Your task to perform on an android device: open app "Microsoft Outlook" (install if not already installed) Image 0: 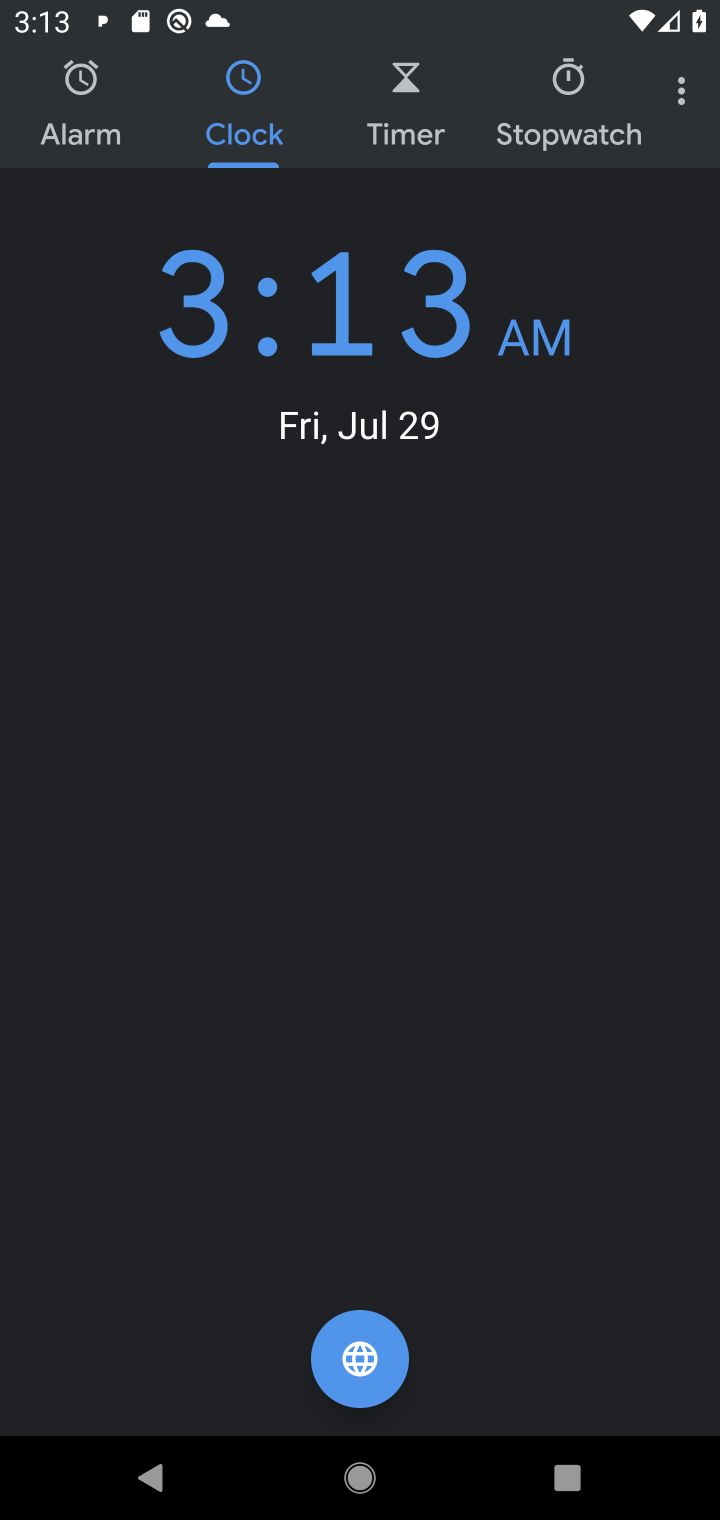
Step 0: press home button
Your task to perform on an android device: open app "Microsoft Outlook" (install if not already installed) Image 1: 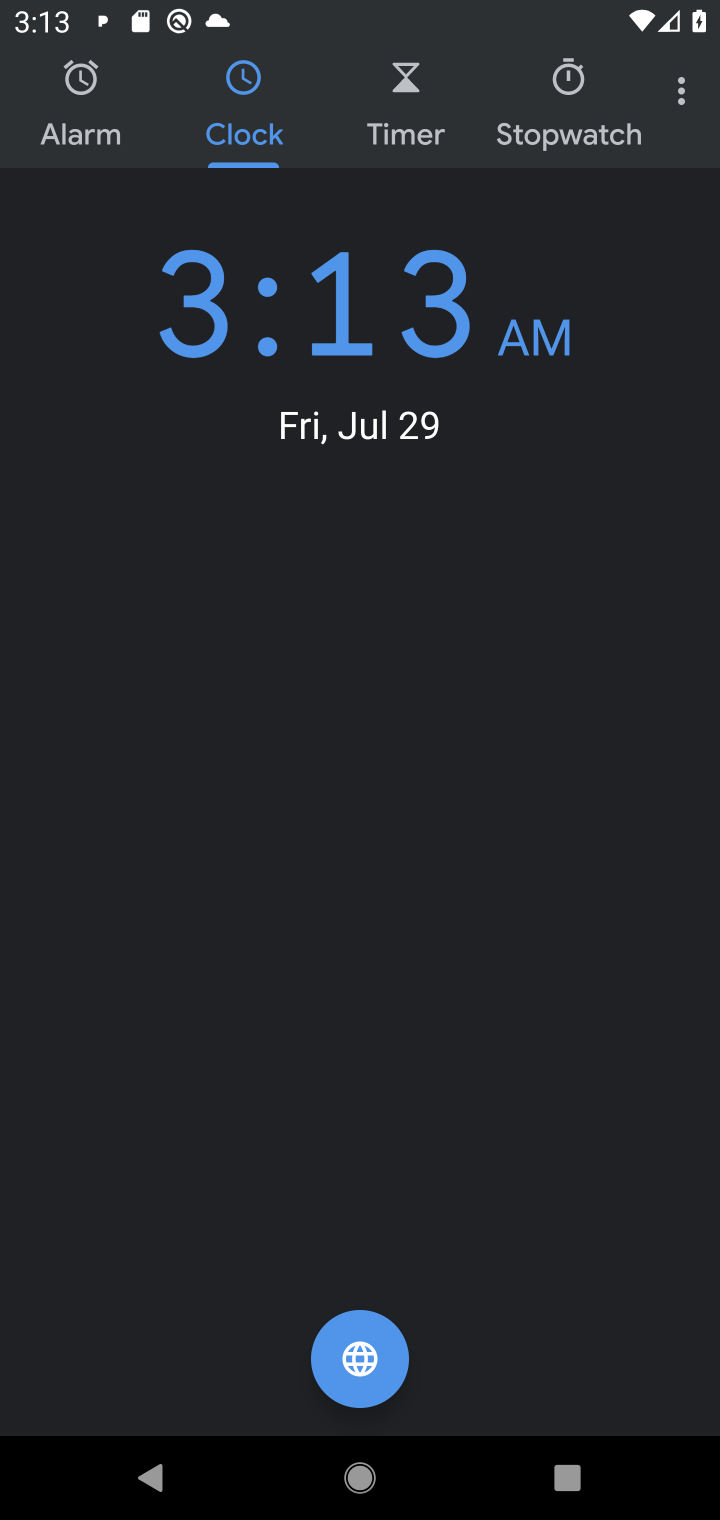
Step 1: press home button
Your task to perform on an android device: open app "Microsoft Outlook" (install if not already installed) Image 2: 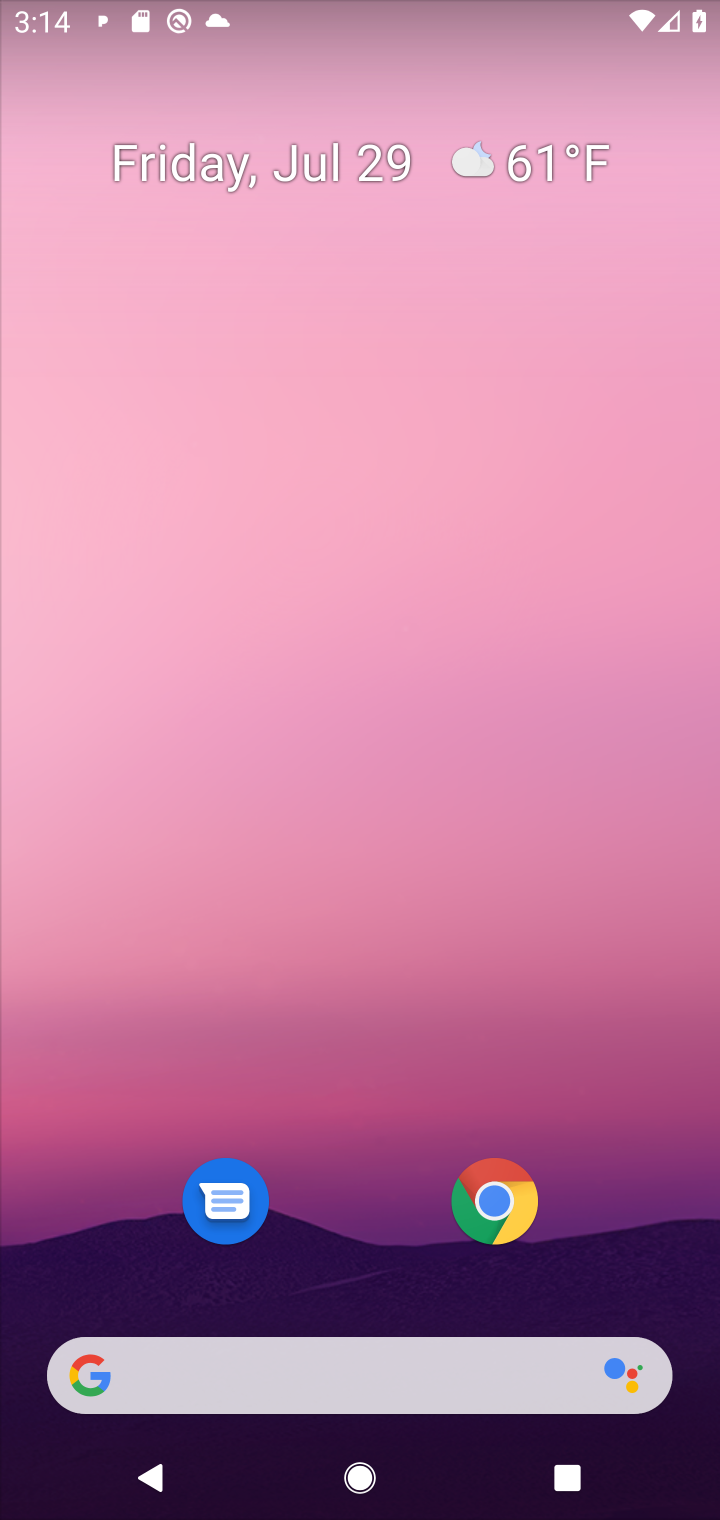
Step 2: drag from (599, 1132) to (597, 511)
Your task to perform on an android device: open app "Microsoft Outlook" (install if not already installed) Image 3: 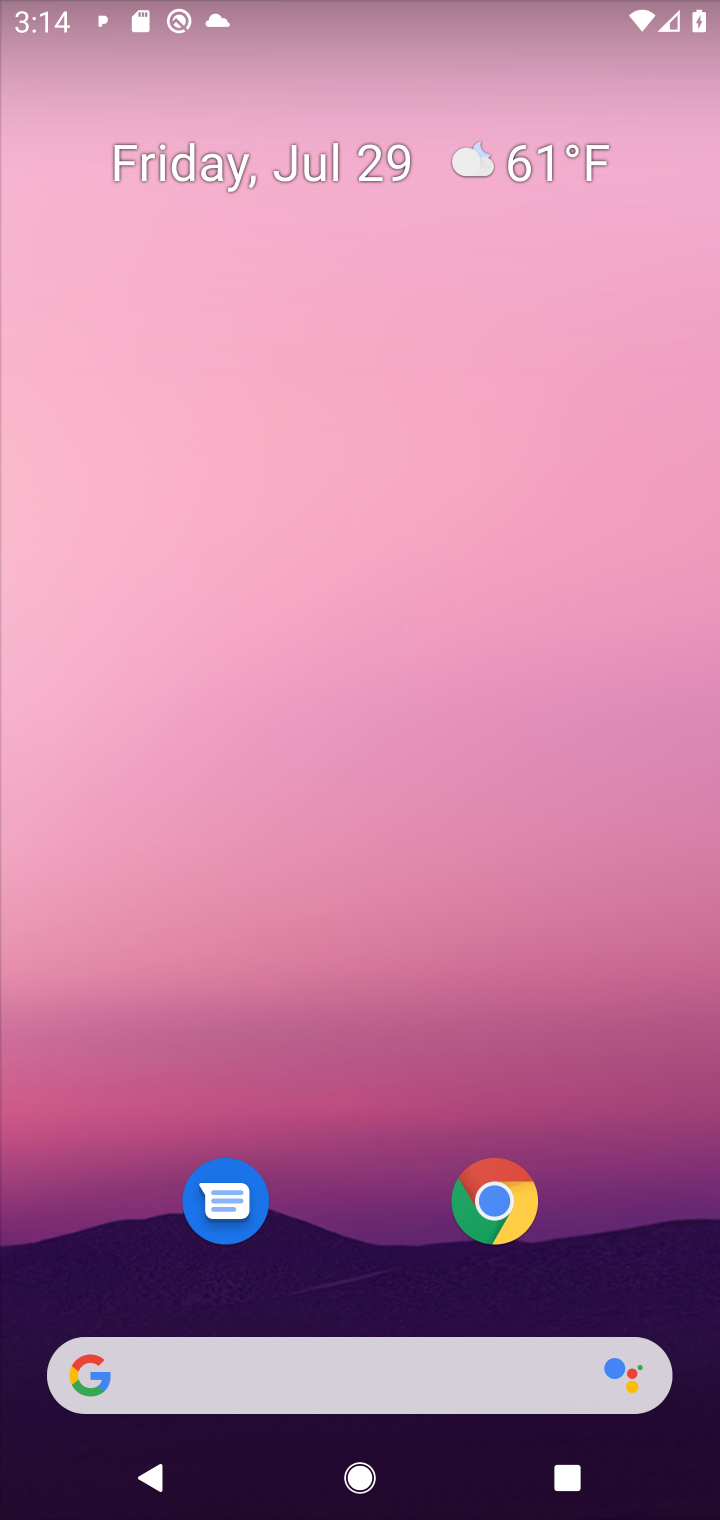
Step 3: drag from (610, 1163) to (610, 491)
Your task to perform on an android device: open app "Microsoft Outlook" (install if not already installed) Image 4: 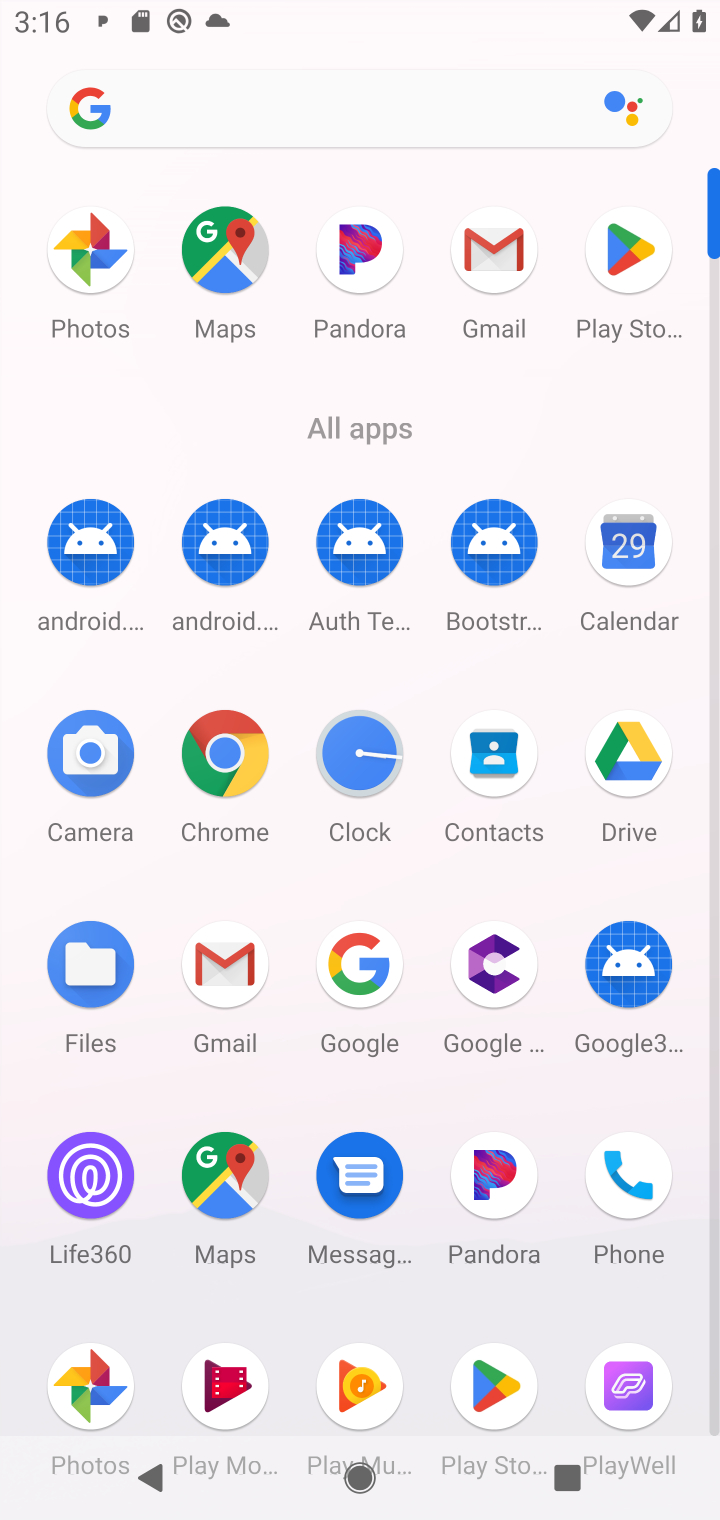
Step 4: click (583, 225)
Your task to perform on an android device: open app "Microsoft Outlook" (install if not already installed) Image 5: 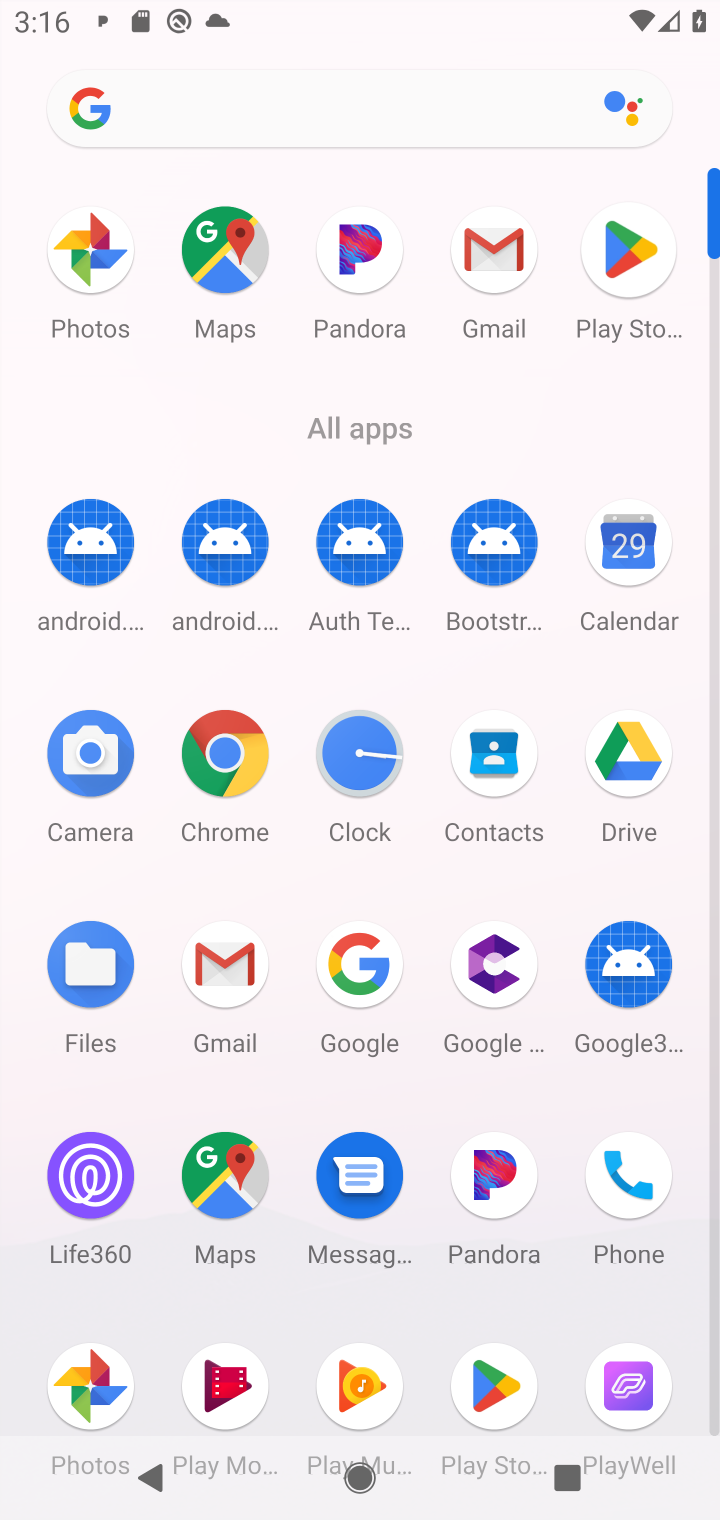
Step 5: click (616, 252)
Your task to perform on an android device: open app "Microsoft Outlook" (install if not already installed) Image 6: 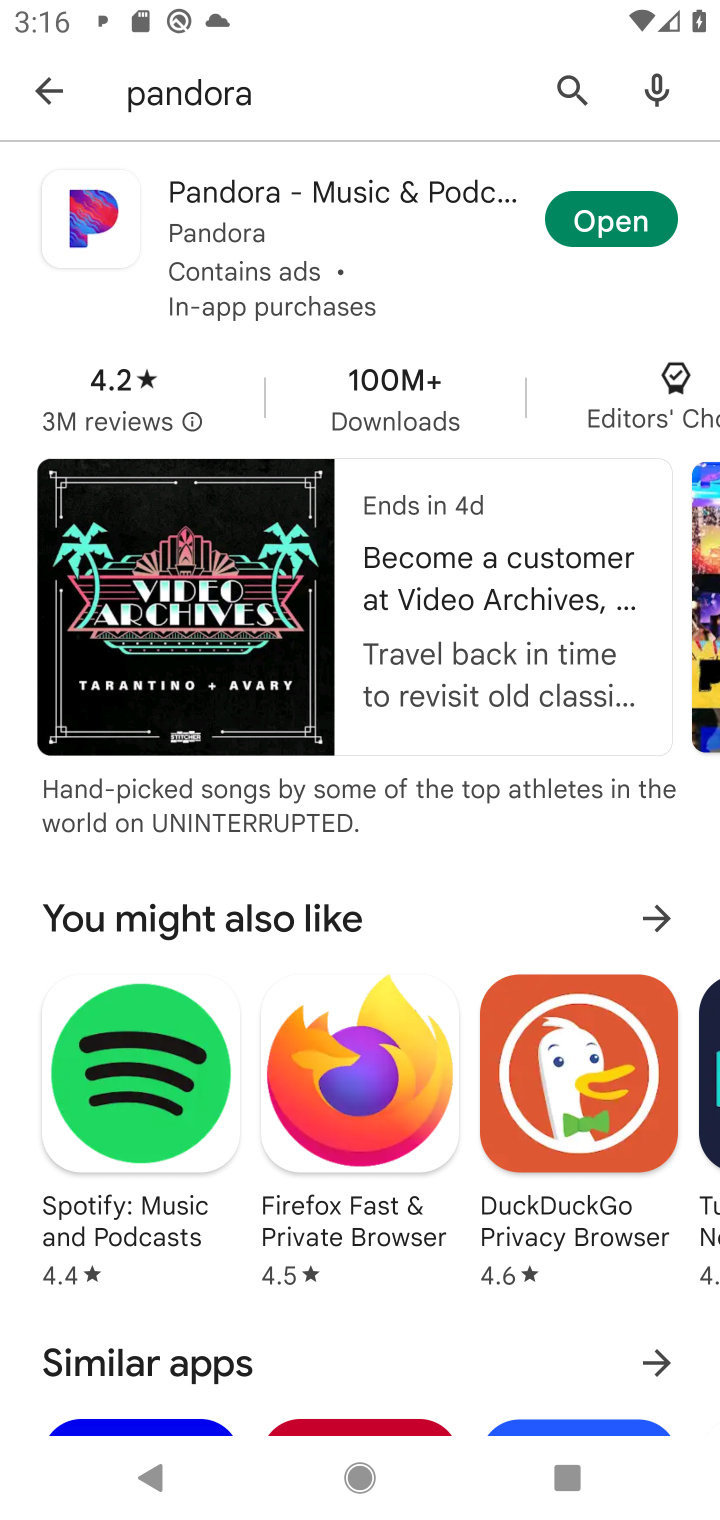
Step 6: click (566, 80)
Your task to perform on an android device: open app "Microsoft Outlook" (install if not already installed) Image 7: 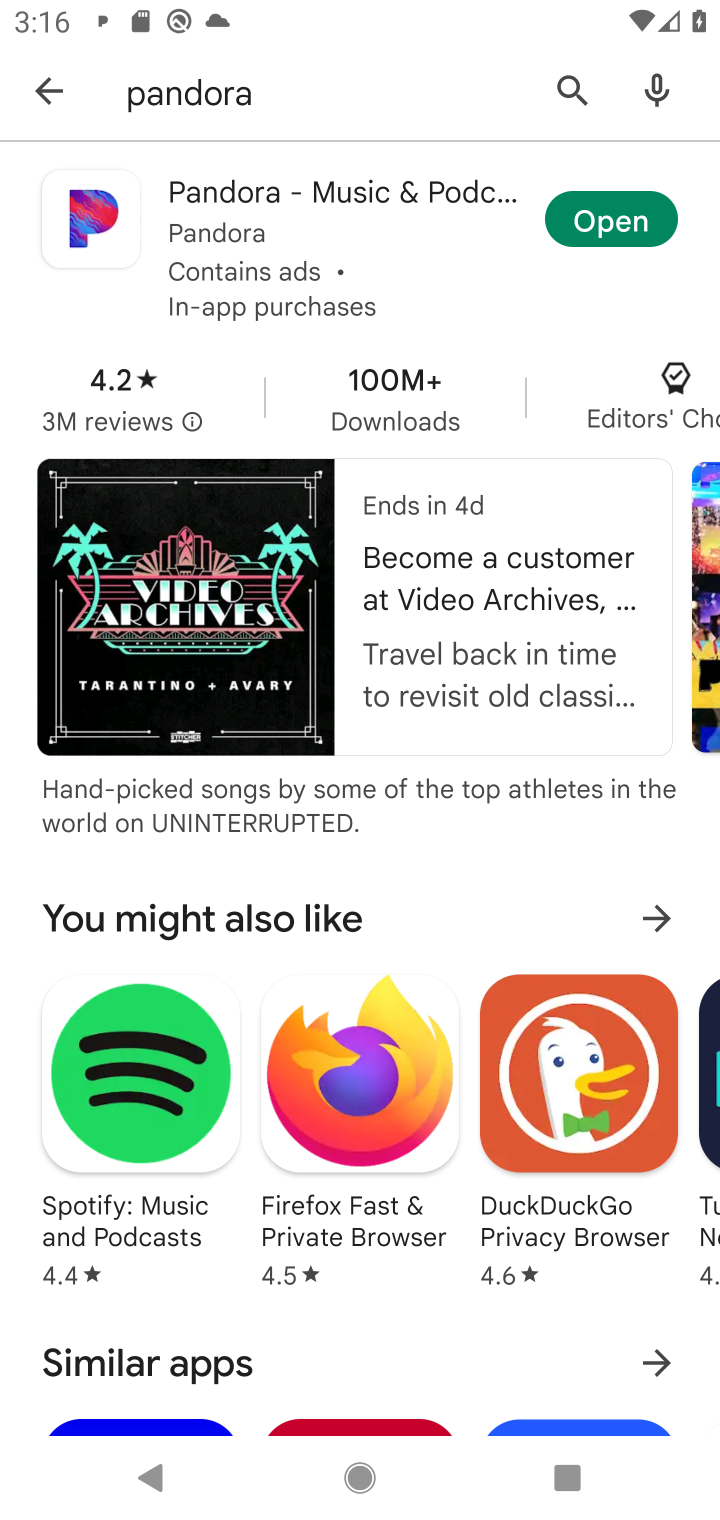
Step 7: click (566, 80)
Your task to perform on an android device: open app "Microsoft Outlook" (install if not already installed) Image 8: 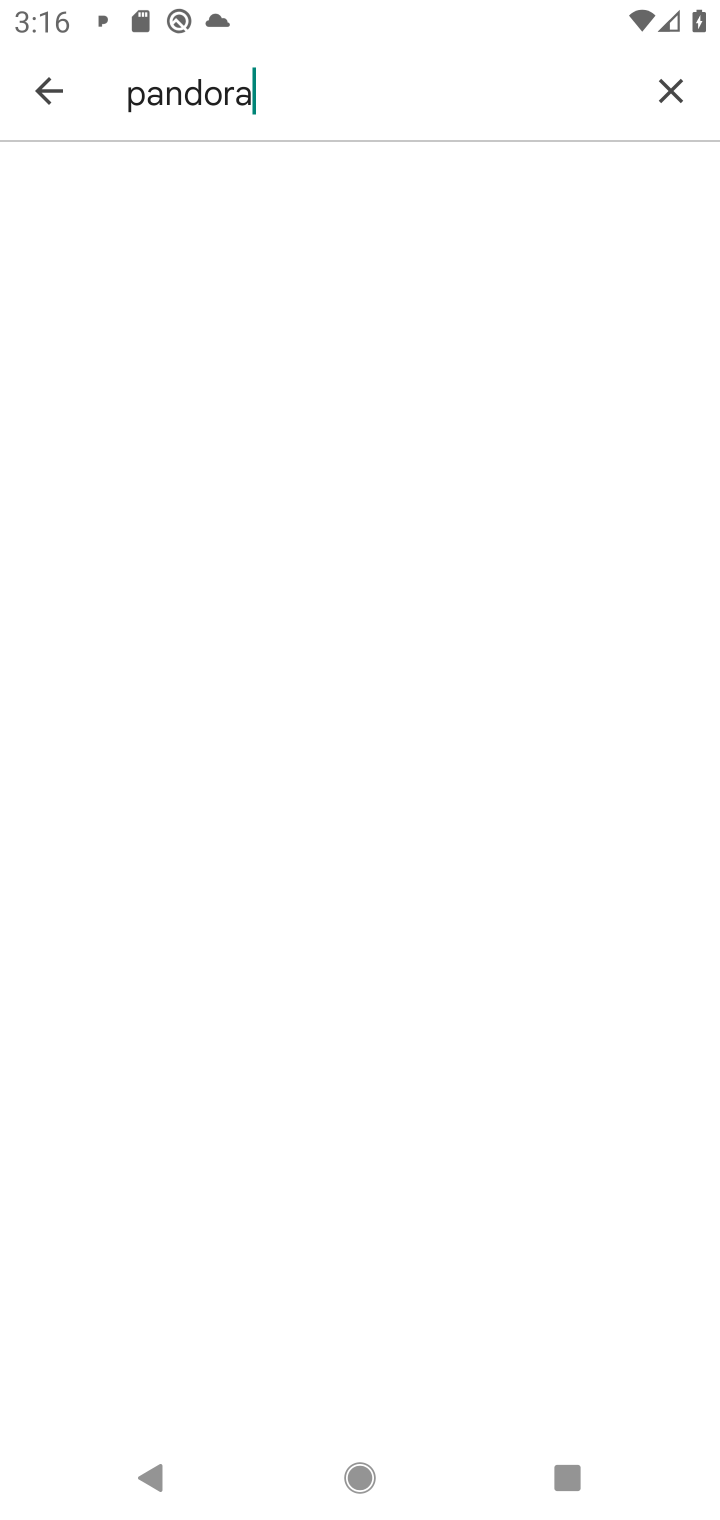
Step 8: click (566, 80)
Your task to perform on an android device: open app "Microsoft Outlook" (install if not already installed) Image 9: 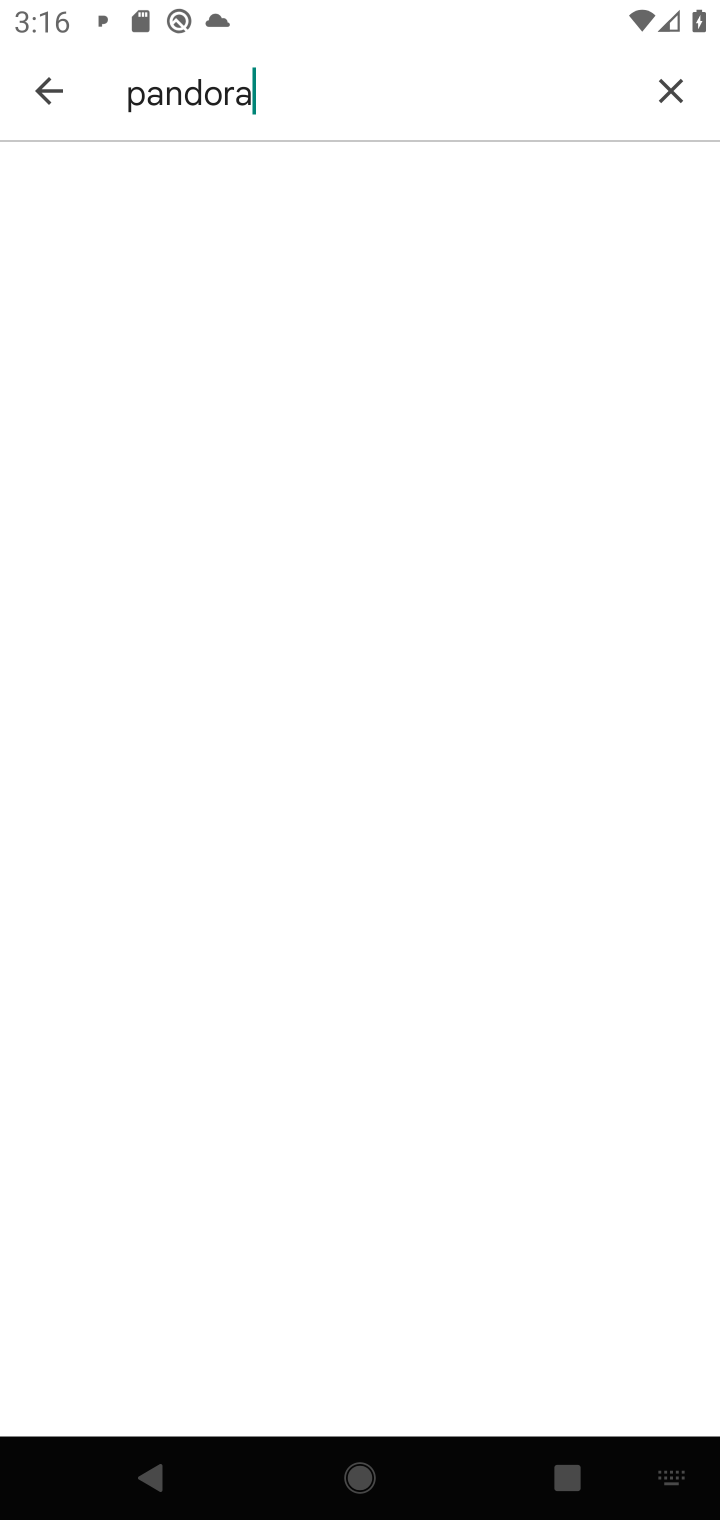
Step 9: click (566, 80)
Your task to perform on an android device: open app "Microsoft Outlook" (install if not already installed) Image 10: 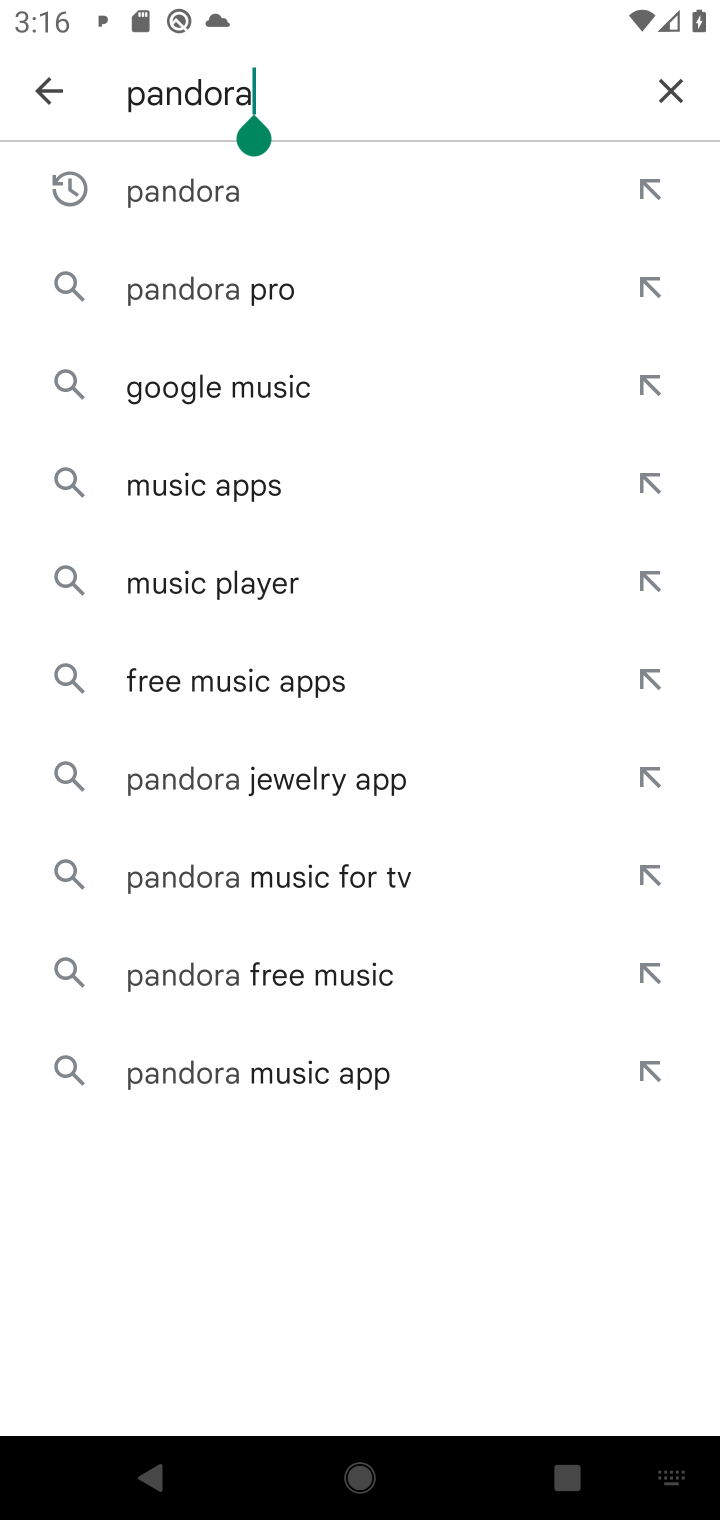
Step 10: click (669, 84)
Your task to perform on an android device: open app "Microsoft Outlook" (install if not already installed) Image 11: 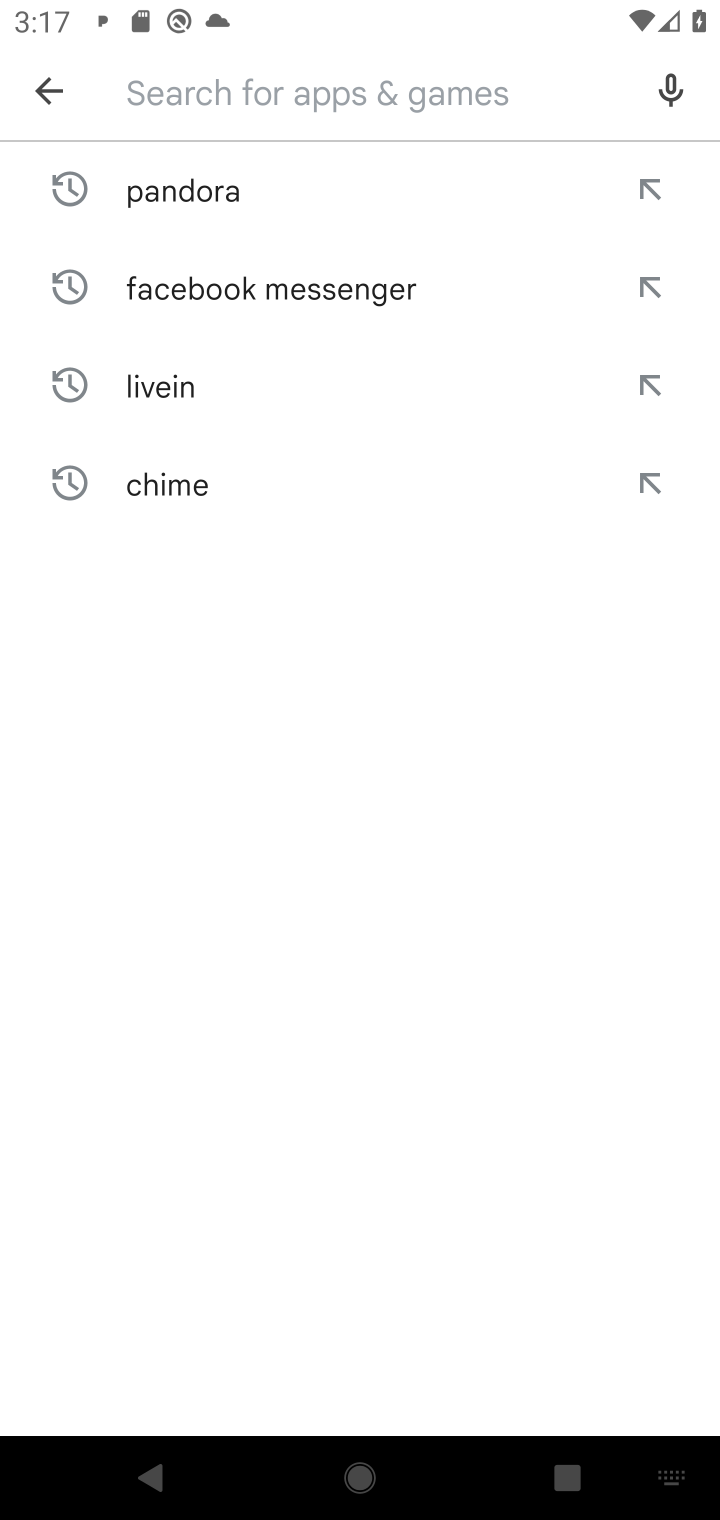
Step 11: type "Pandora"
Your task to perform on an android device: open app "Microsoft Outlook" (install if not already installed) Image 12: 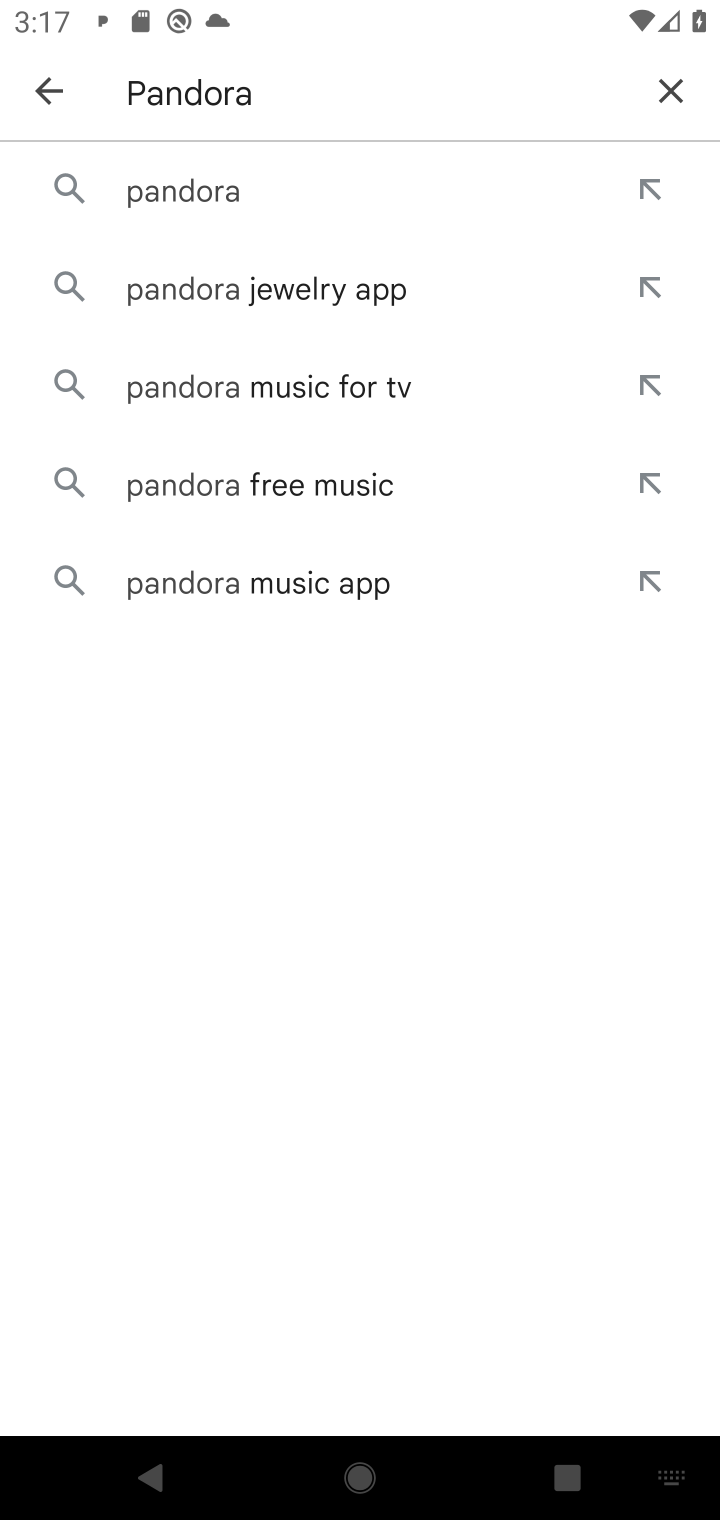
Step 12: click (111, 169)
Your task to perform on an android device: open app "Microsoft Outlook" (install if not already installed) Image 13: 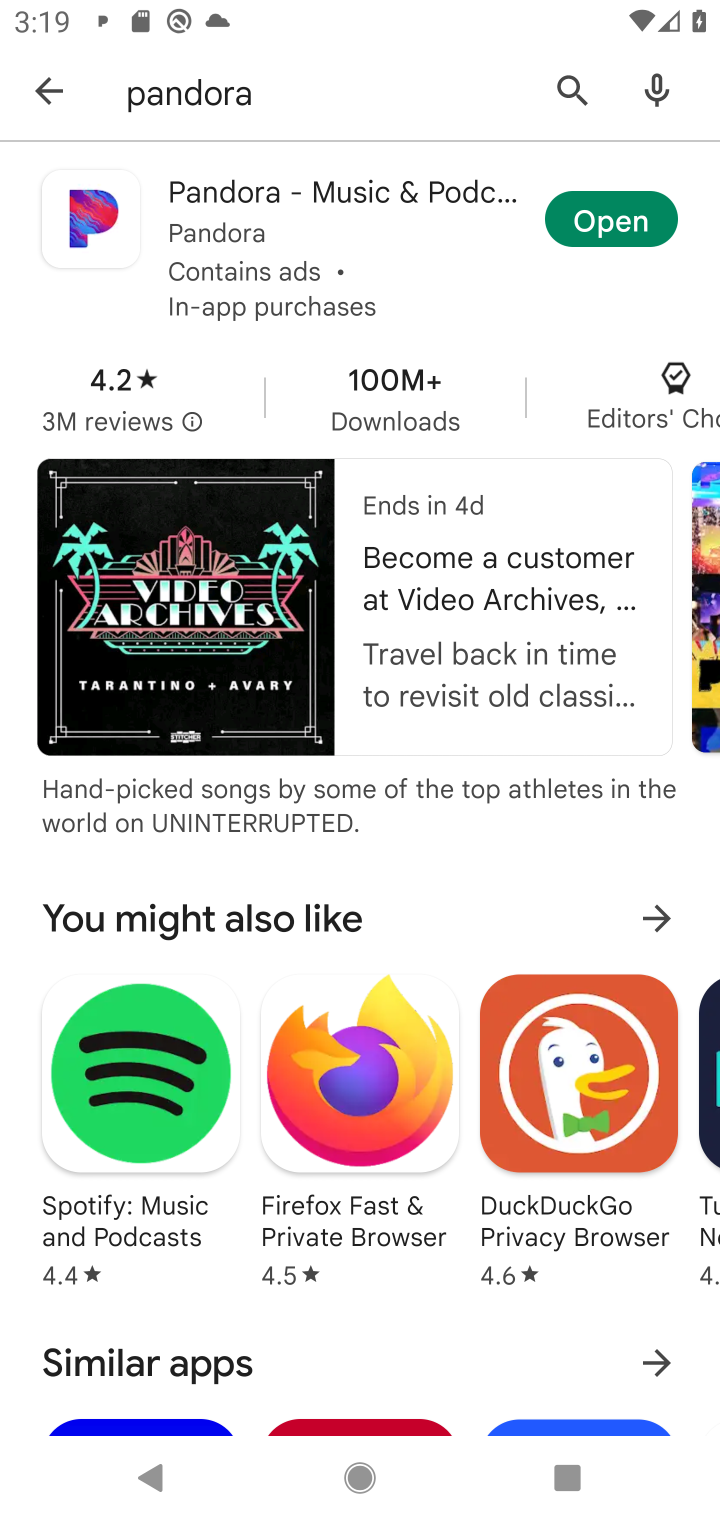
Step 13: click (551, 92)
Your task to perform on an android device: open app "Microsoft Outlook" (install if not already installed) Image 14: 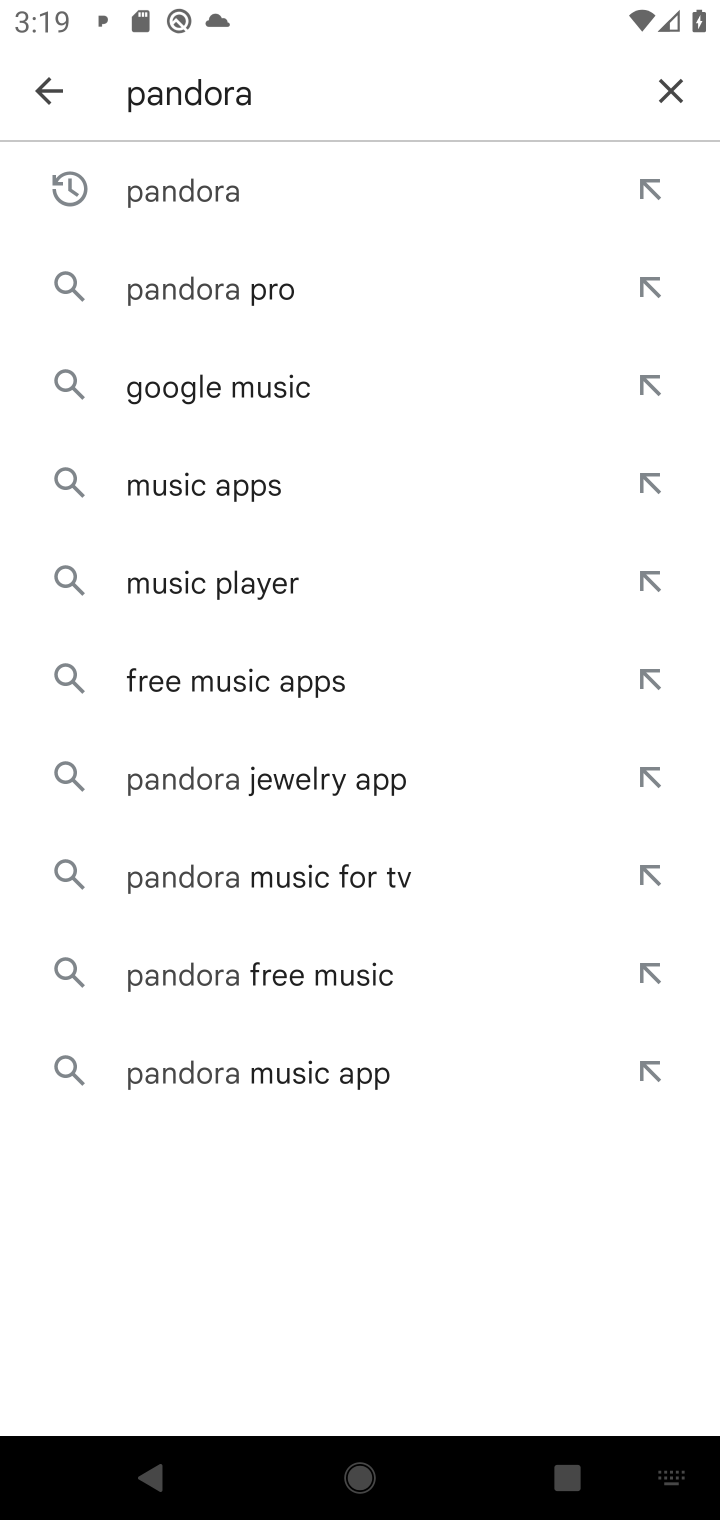
Step 14: click (665, 78)
Your task to perform on an android device: open app "Microsoft Outlook" (install if not already installed) Image 15: 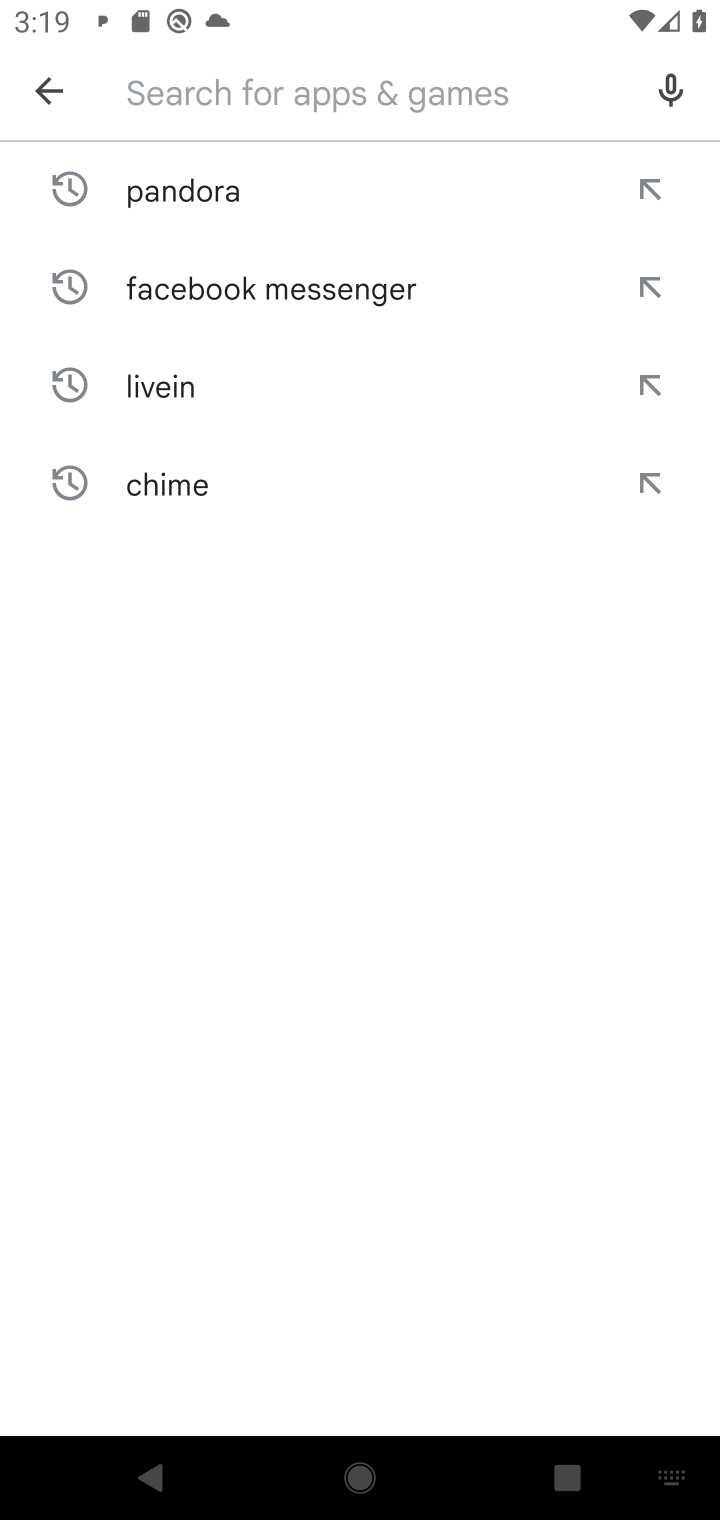
Step 15: type "Microsoft outlook"
Your task to perform on an android device: open app "Microsoft Outlook" (install if not already installed) Image 16: 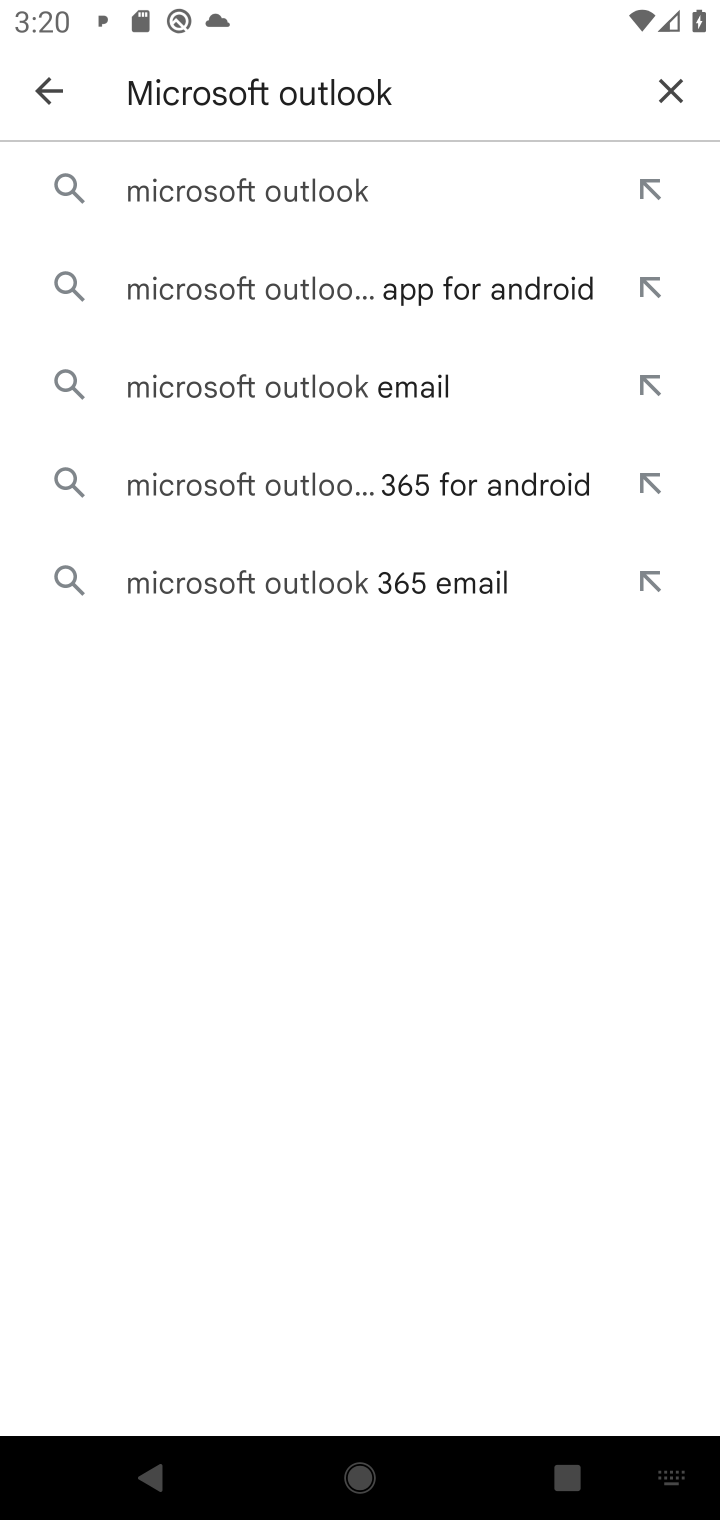
Step 16: click (114, 173)
Your task to perform on an android device: open app "Microsoft Outlook" (install if not already installed) Image 17: 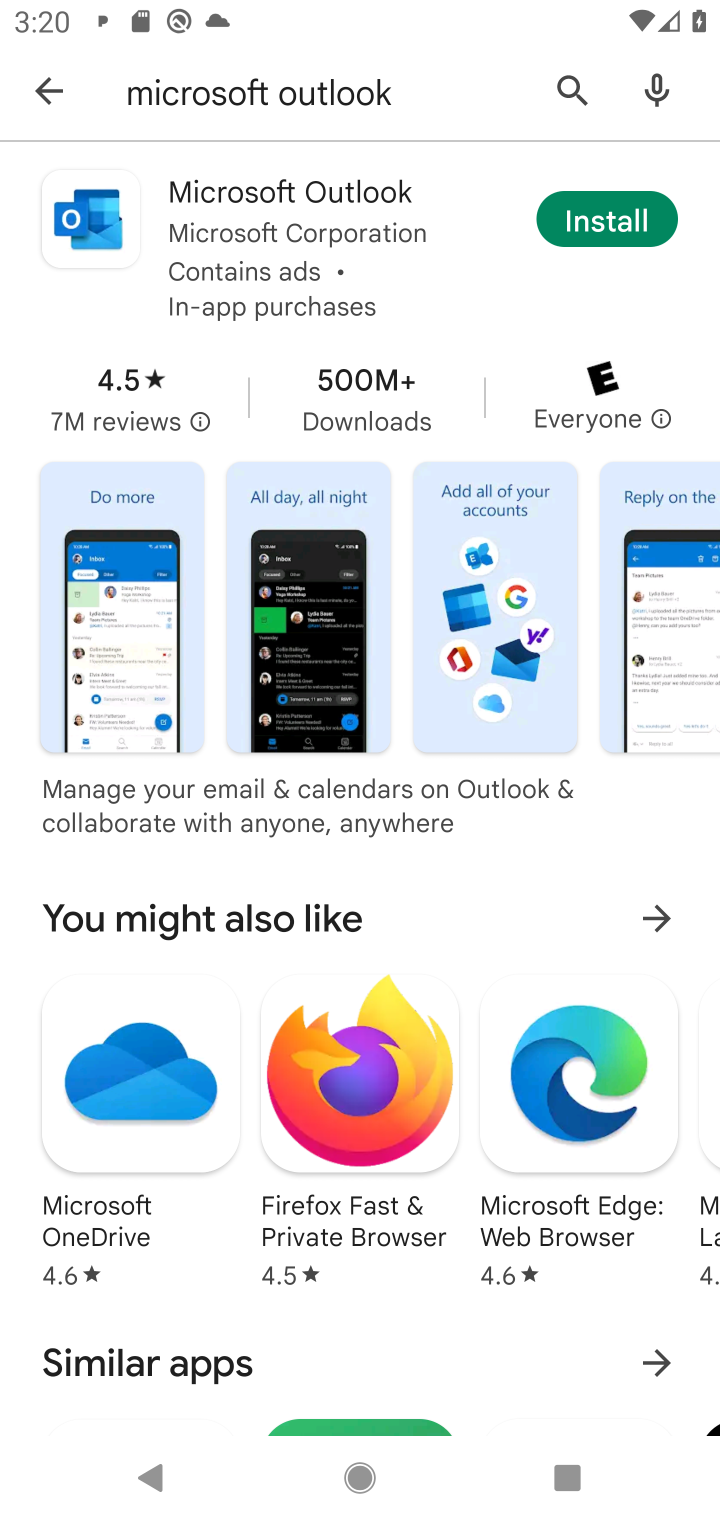
Step 17: click (606, 202)
Your task to perform on an android device: open app "Microsoft Outlook" (install if not already installed) Image 18: 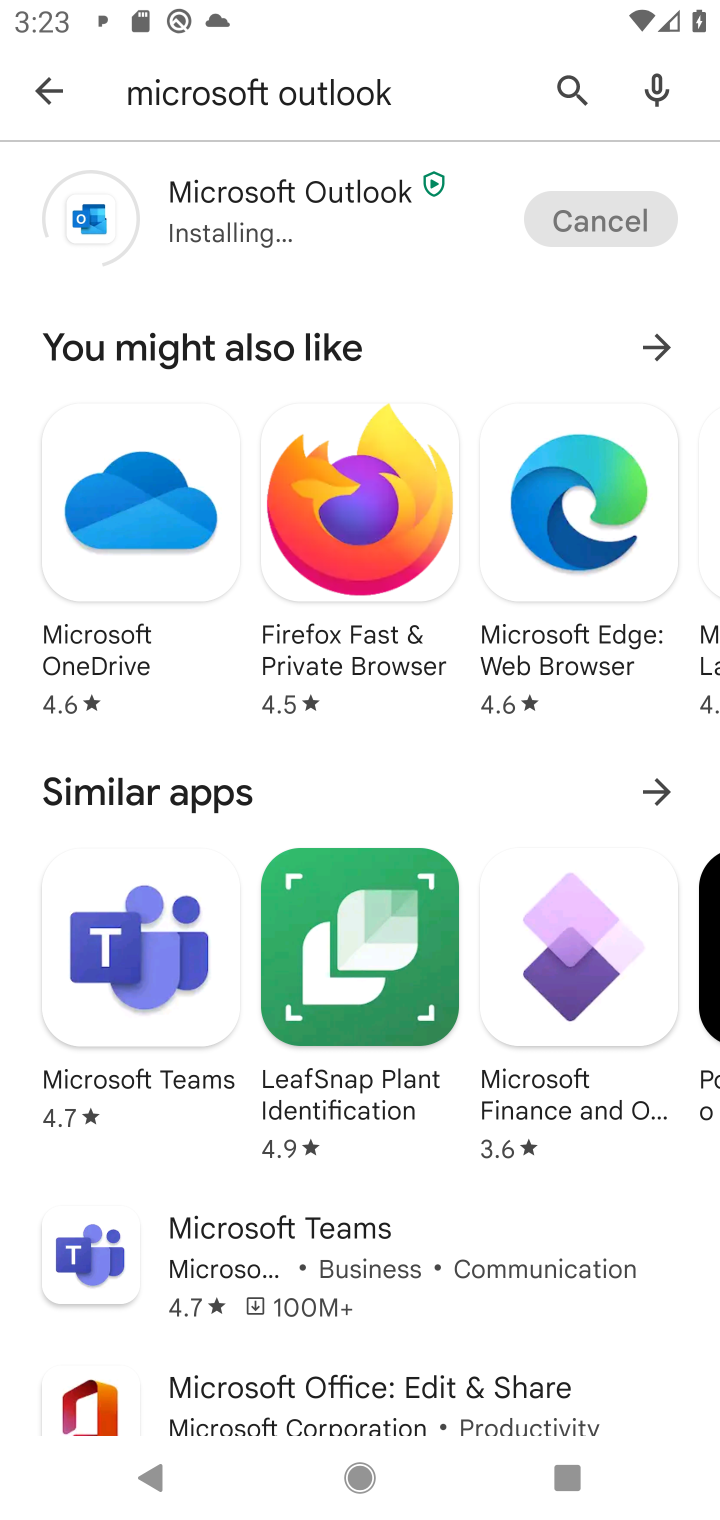
Step 18: click (556, 216)
Your task to perform on an android device: open app "Microsoft Outlook" (install if not already installed) Image 19: 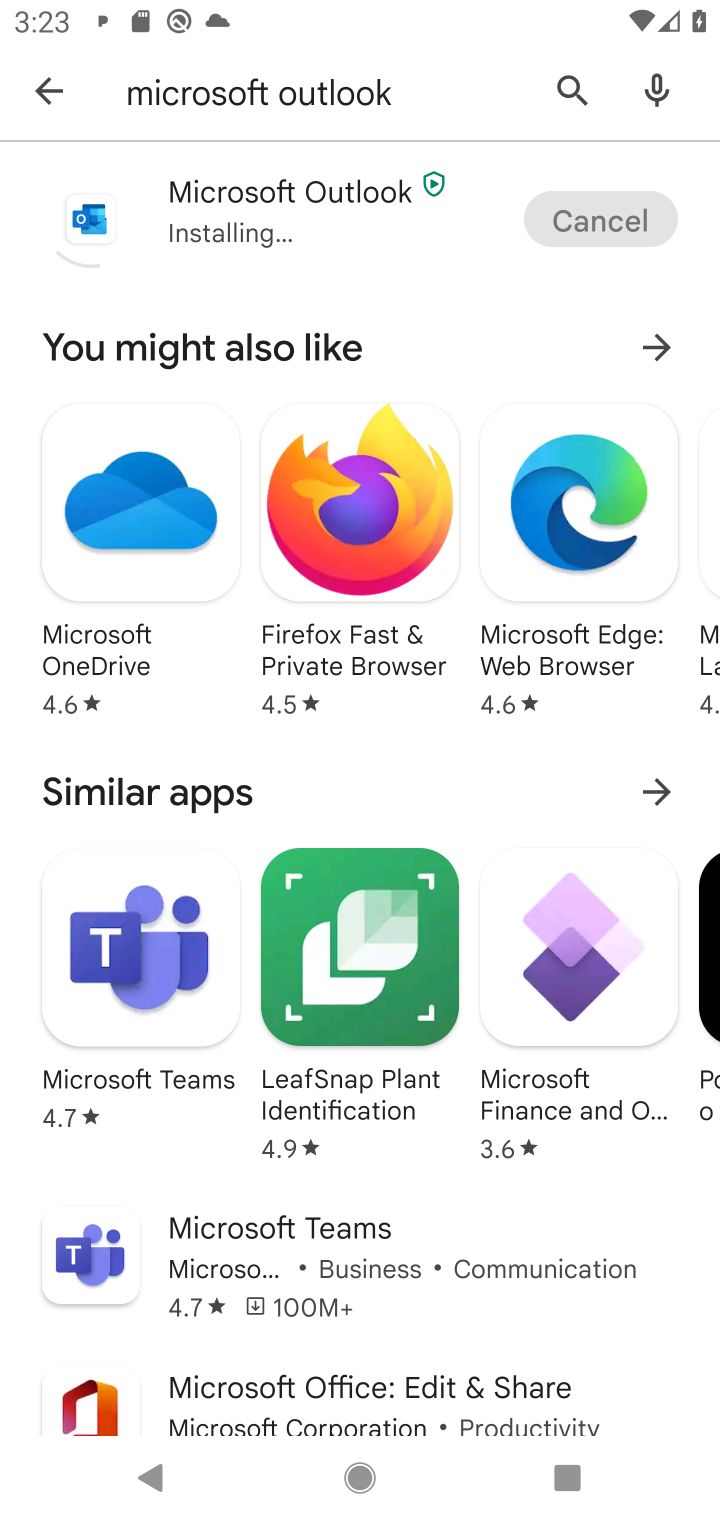
Step 19: click (629, 210)
Your task to perform on an android device: open app "Microsoft Outlook" (install if not already installed) Image 20: 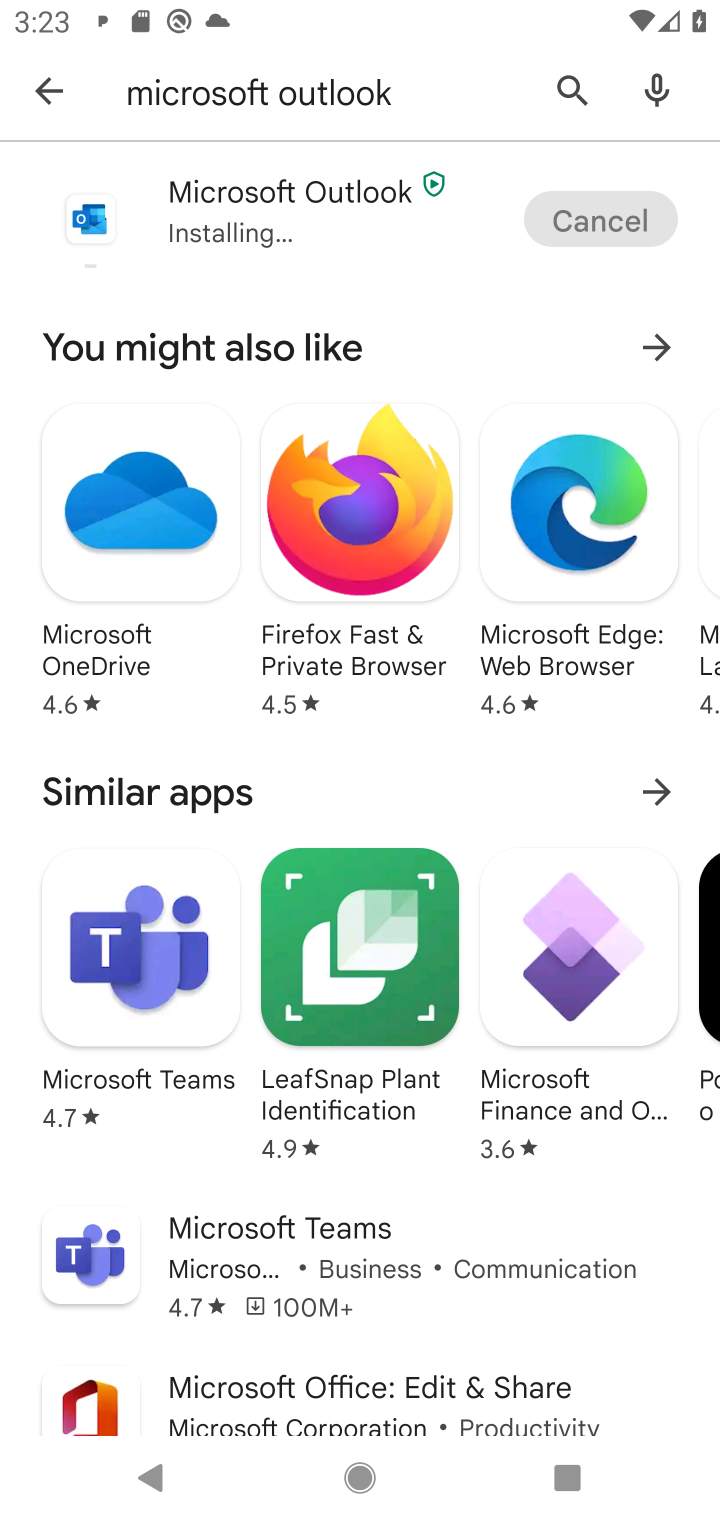
Step 20: task complete